Your task to perform on an android device: Open the Play Movies app and select the watchlist tab. Image 0: 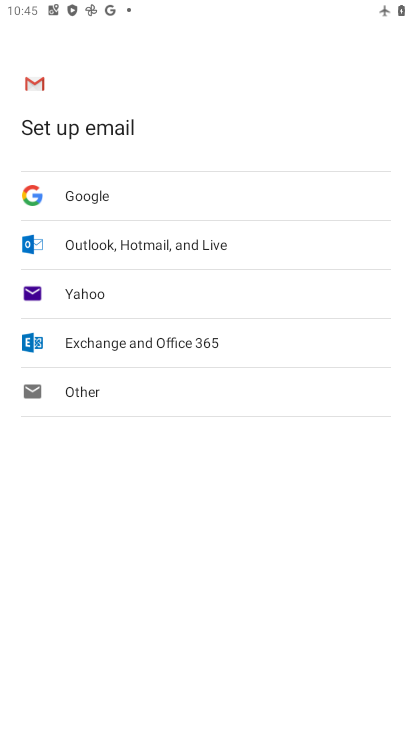
Step 0: press home button
Your task to perform on an android device: Open the Play Movies app and select the watchlist tab. Image 1: 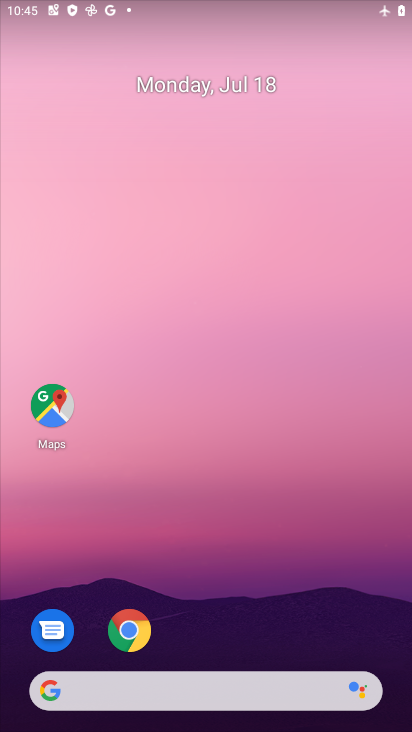
Step 1: drag from (354, 616) to (312, 121)
Your task to perform on an android device: Open the Play Movies app and select the watchlist tab. Image 2: 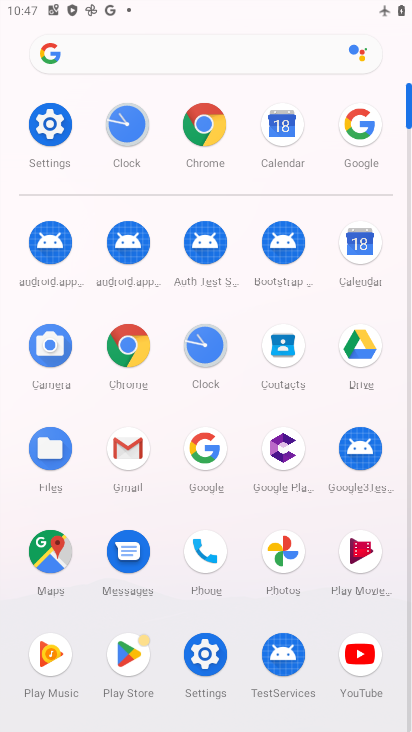
Step 2: click (360, 560)
Your task to perform on an android device: Open the Play Movies app and select the watchlist tab. Image 3: 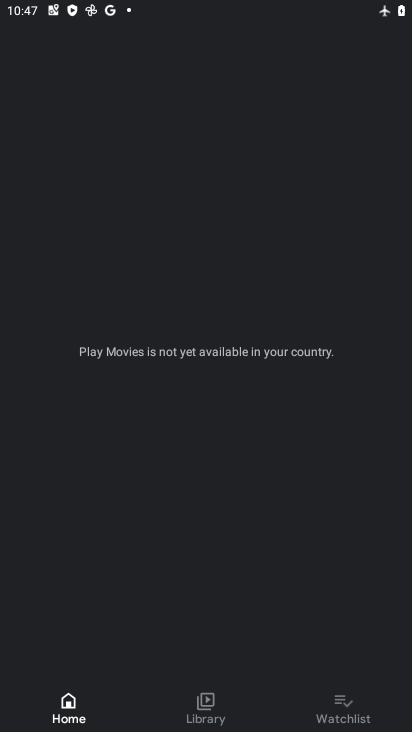
Step 3: click (342, 693)
Your task to perform on an android device: Open the Play Movies app and select the watchlist tab. Image 4: 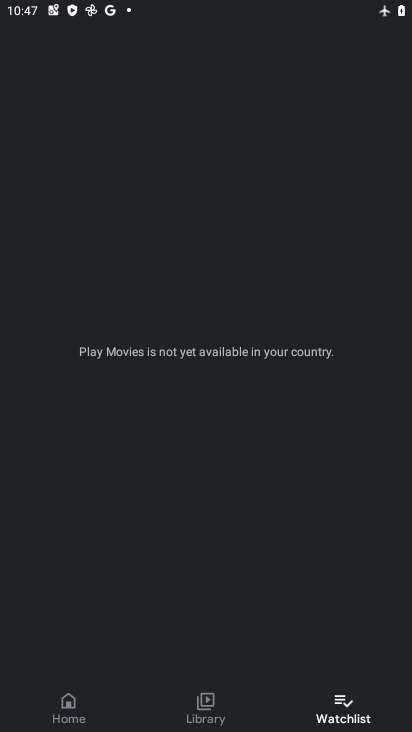
Step 4: task complete